Your task to perform on an android device: turn off smart reply in the gmail app Image 0: 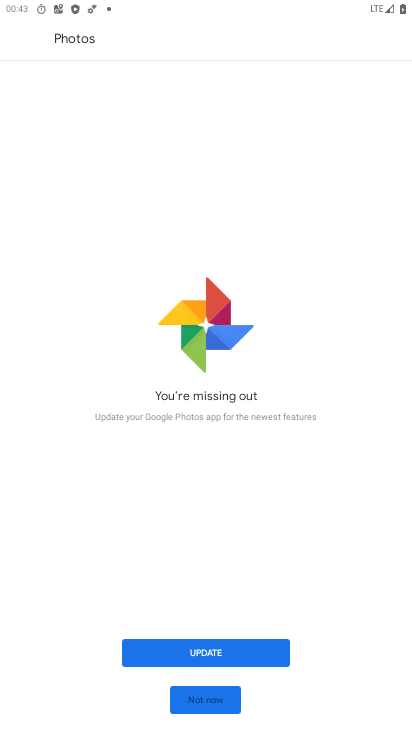
Step 0: press home button
Your task to perform on an android device: turn off smart reply in the gmail app Image 1: 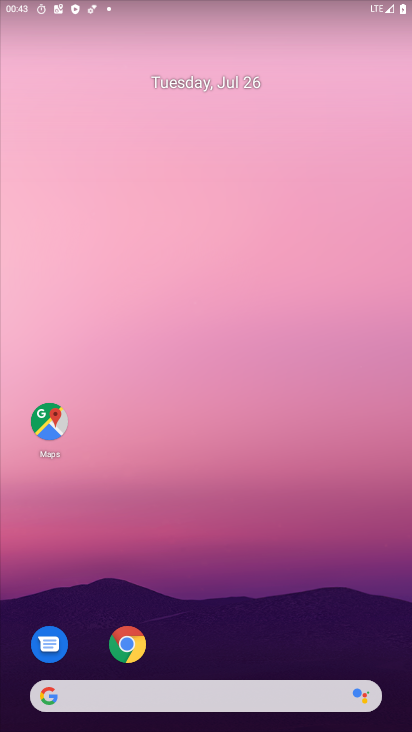
Step 1: drag from (250, 655) to (263, 24)
Your task to perform on an android device: turn off smart reply in the gmail app Image 2: 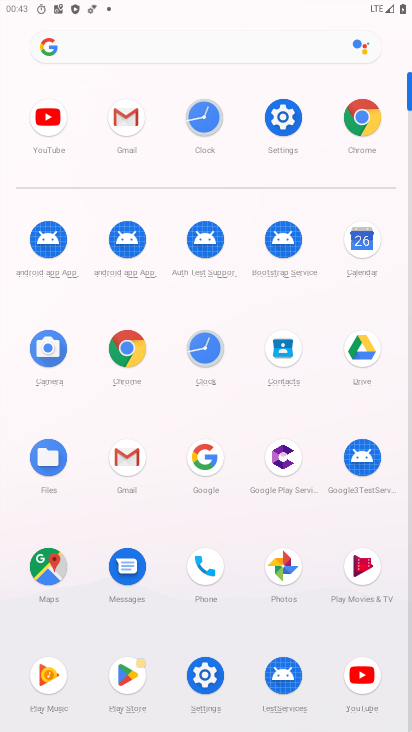
Step 2: click (135, 125)
Your task to perform on an android device: turn off smart reply in the gmail app Image 3: 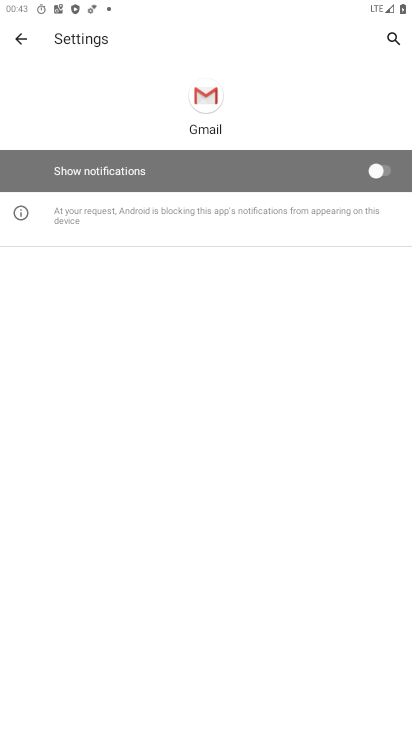
Step 3: click (24, 36)
Your task to perform on an android device: turn off smart reply in the gmail app Image 4: 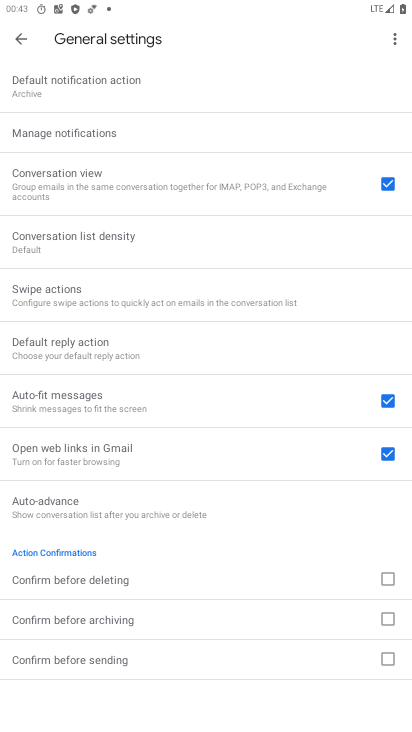
Step 4: click (24, 36)
Your task to perform on an android device: turn off smart reply in the gmail app Image 5: 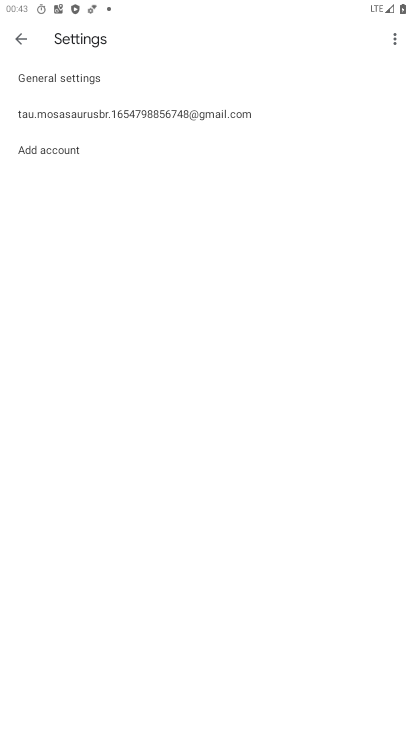
Step 5: click (56, 116)
Your task to perform on an android device: turn off smart reply in the gmail app Image 6: 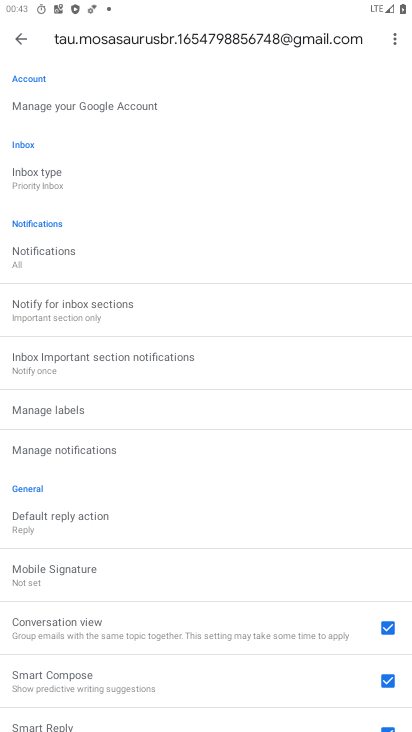
Step 6: drag from (216, 619) to (239, 357)
Your task to perform on an android device: turn off smart reply in the gmail app Image 7: 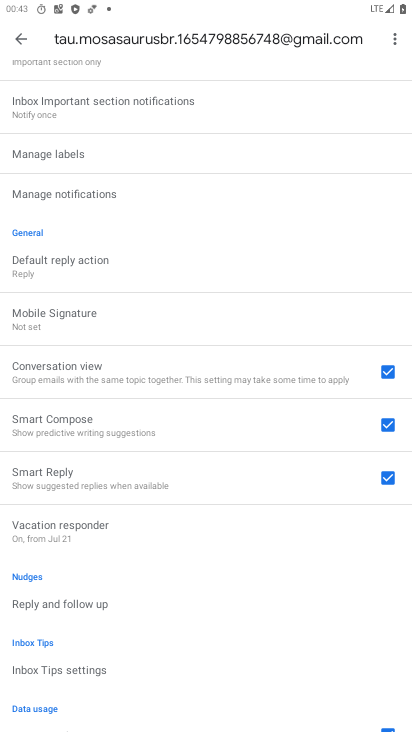
Step 7: click (387, 475)
Your task to perform on an android device: turn off smart reply in the gmail app Image 8: 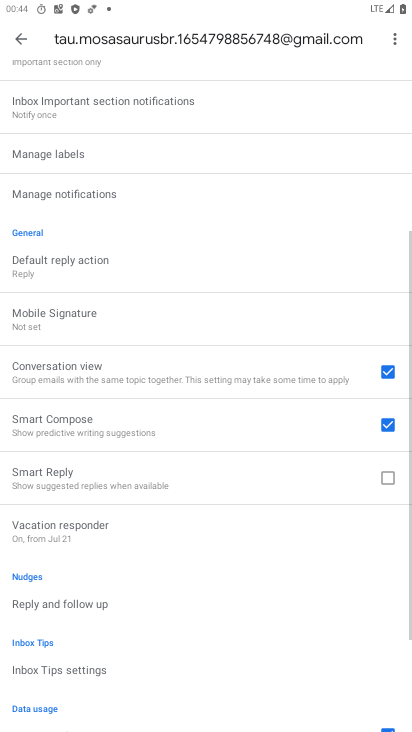
Step 8: task complete